Your task to perform on an android device: Open the web browser Image 0: 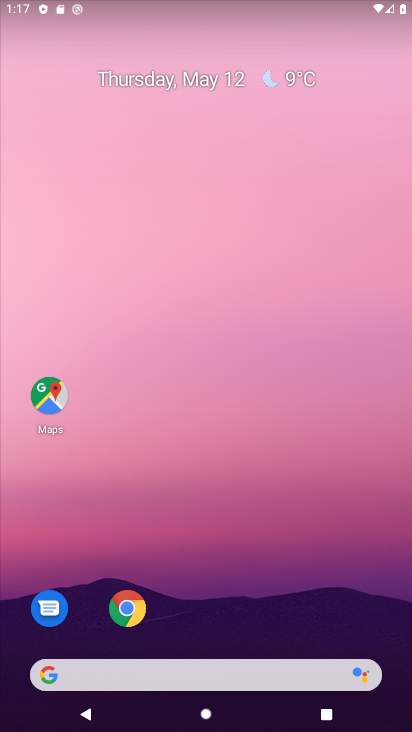
Step 0: drag from (257, 585) to (161, 249)
Your task to perform on an android device: Open the web browser Image 1: 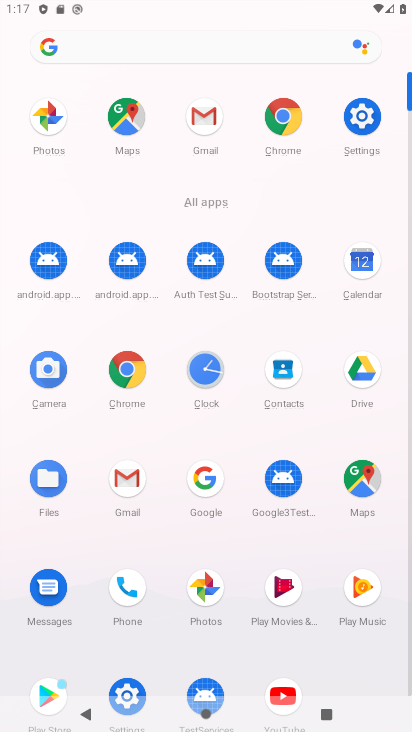
Step 1: click (134, 380)
Your task to perform on an android device: Open the web browser Image 2: 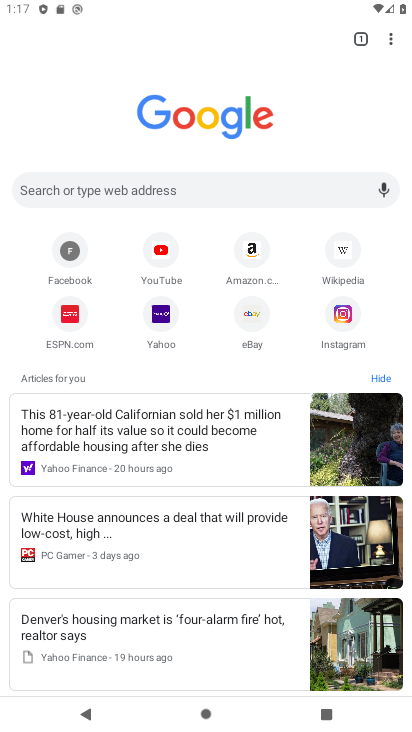
Step 2: task complete